Your task to perform on an android device: toggle improve location accuracy Image 0: 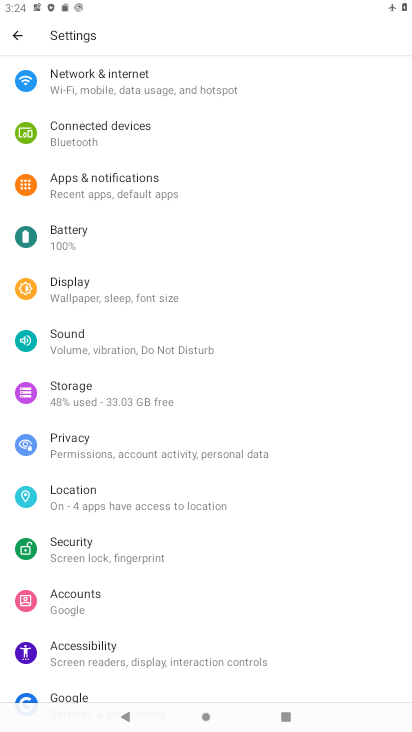
Step 0: click (94, 489)
Your task to perform on an android device: toggle improve location accuracy Image 1: 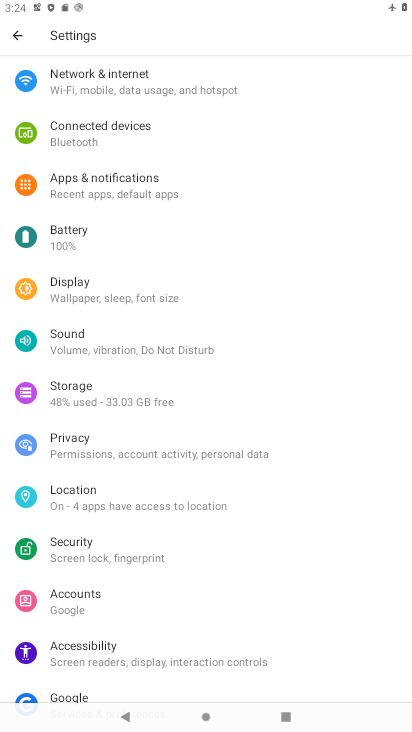
Step 1: click (95, 498)
Your task to perform on an android device: toggle improve location accuracy Image 2: 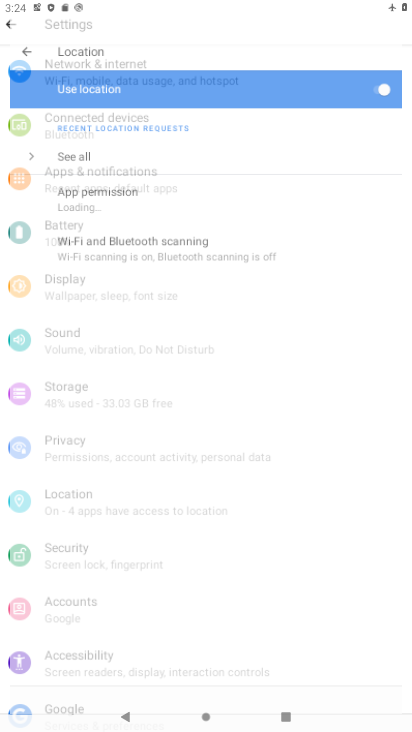
Step 2: click (95, 502)
Your task to perform on an android device: toggle improve location accuracy Image 3: 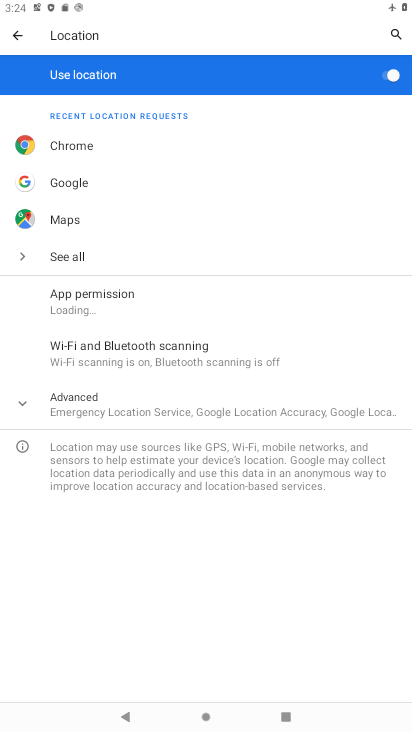
Step 3: click (127, 398)
Your task to perform on an android device: toggle improve location accuracy Image 4: 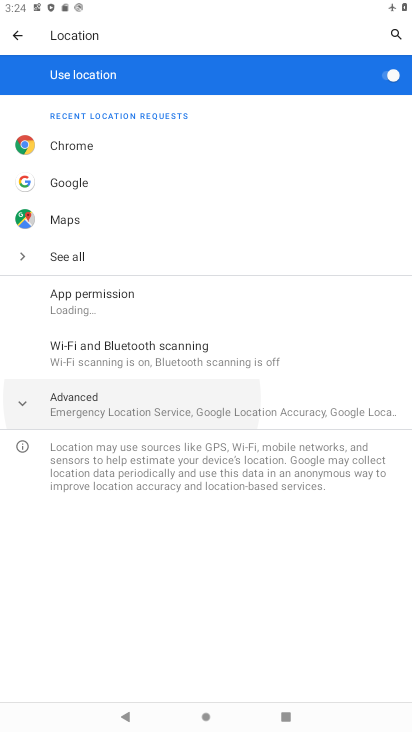
Step 4: click (127, 398)
Your task to perform on an android device: toggle improve location accuracy Image 5: 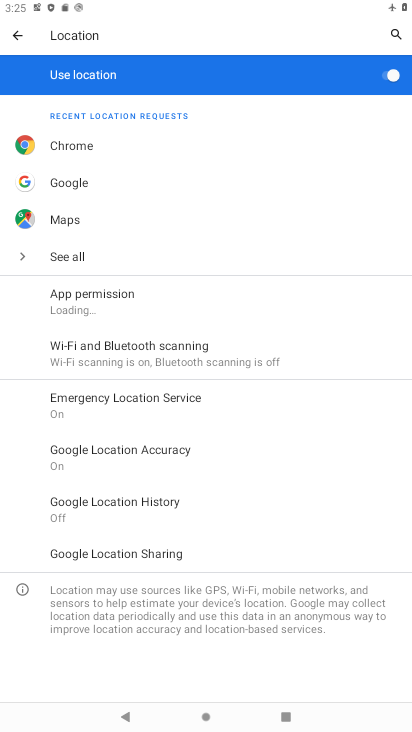
Step 5: click (155, 448)
Your task to perform on an android device: toggle improve location accuracy Image 6: 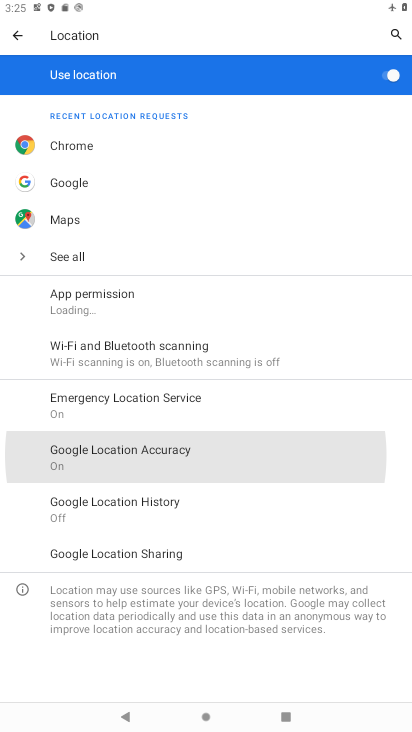
Step 6: click (158, 450)
Your task to perform on an android device: toggle improve location accuracy Image 7: 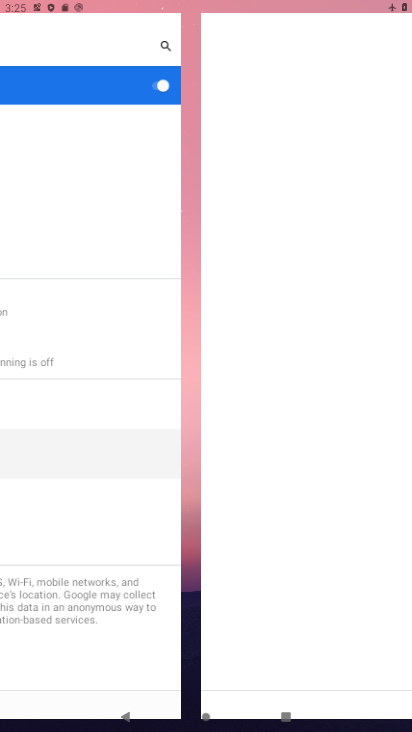
Step 7: click (159, 451)
Your task to perform on an android device: toggle improve location accuracy Image 8: 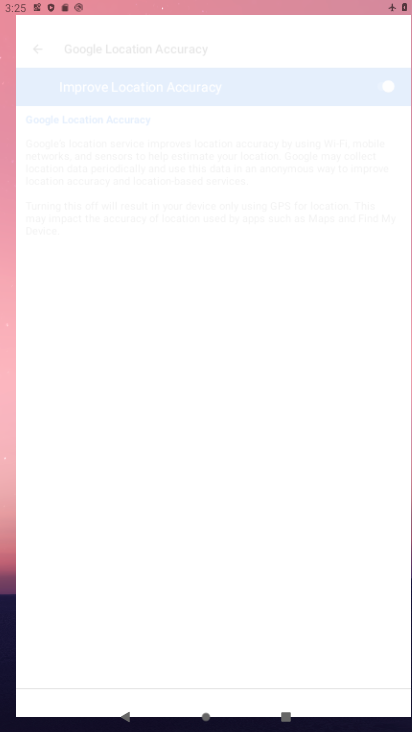
Step 8: click (159, 451)
Your task to perform on an android device: toggle improve location accuracy Image 9: 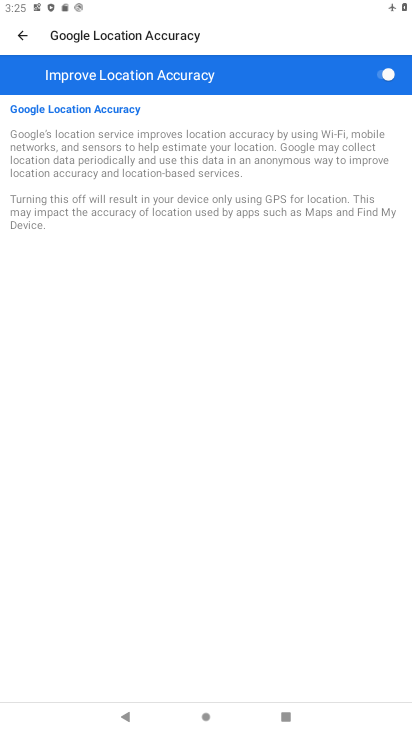
Step 9: click (378, 74)
Your task to perform on an android device: toggle improve location accuracy Image 10: 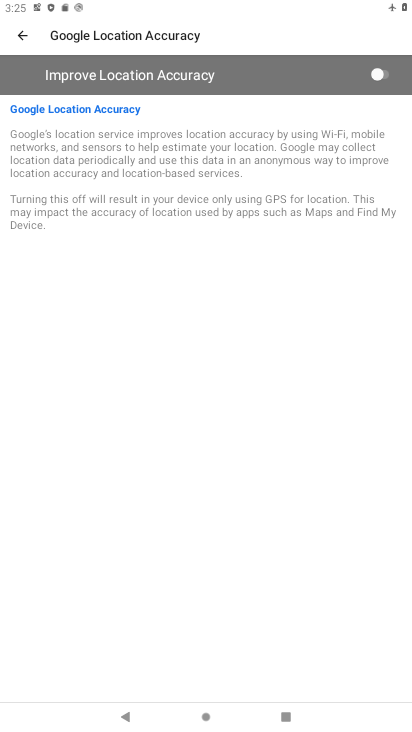
Step 10: task complete